Your task to perform on an android device: create a new album in the google photos Image 0: 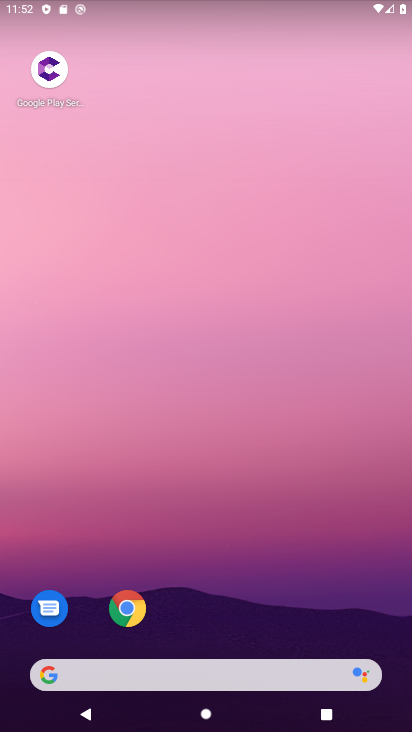
Step 0: drag from (218, 641) to (288, 0)
Your task to perform on an android device: create a new album in the google photos Image 1: 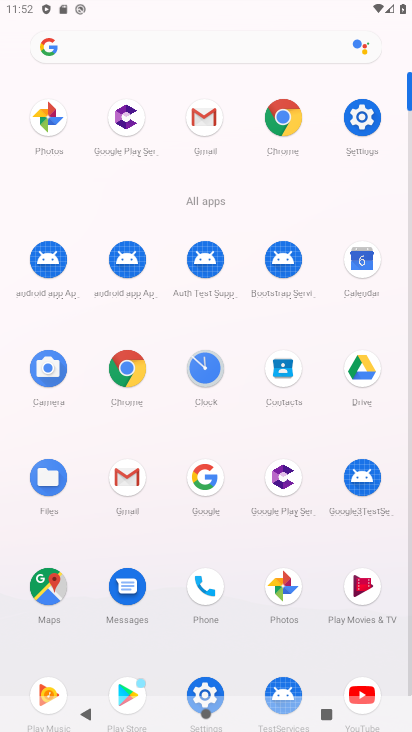
Step 1: click (284, 598)
Your task to perform on an android device: create a new album in the google photos Image 2: 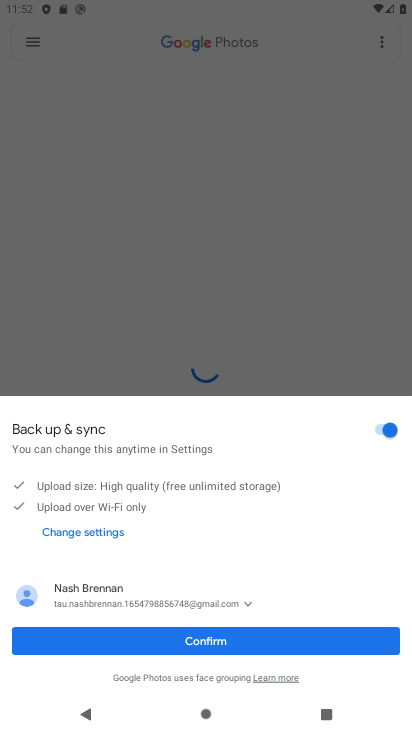
Step 2: click (226, 644)
Your task to perform on an android device: create a new album in the google photos Image 3: 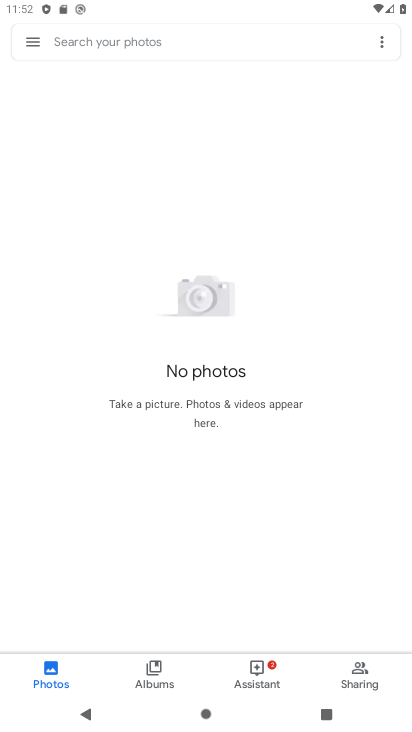
Step 3: click (133, 672)
Your task to perform on an android device: create a new album in the google photos Image 4: 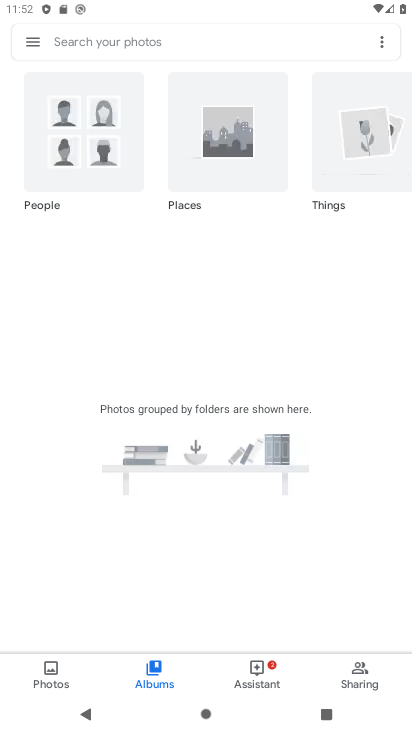
Step 4: click (383, 36)
Your task to perform on an android device: create a new album in the google photos Image 5: 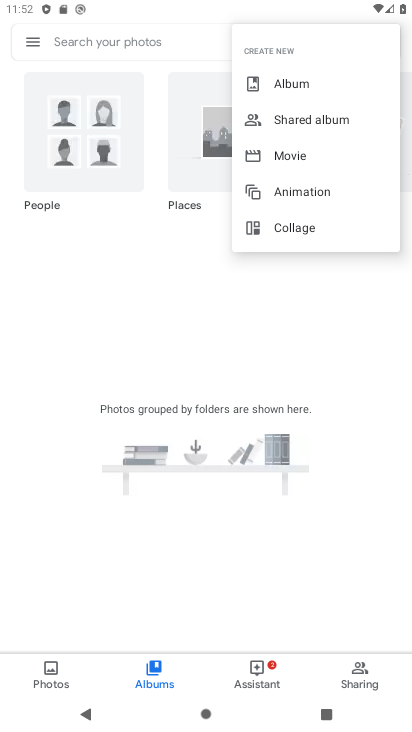
Step 5: click (314, 84)
Your task to perform on an android device: create a new album in the google photos Image 6: 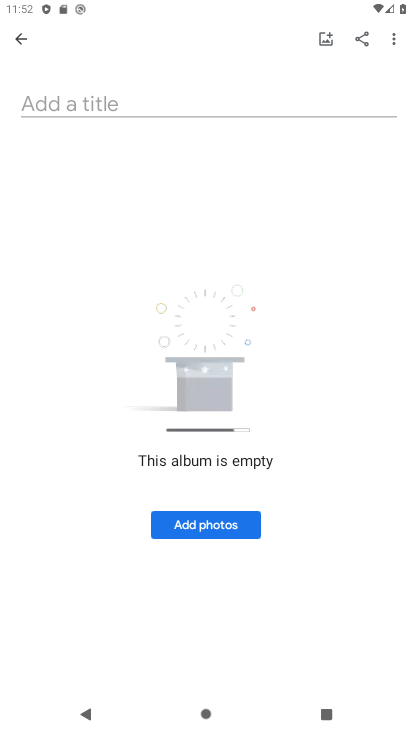
Step 6: click (206, 98)
Your task to perform on an android device: create a new album in the google photos Image 7: 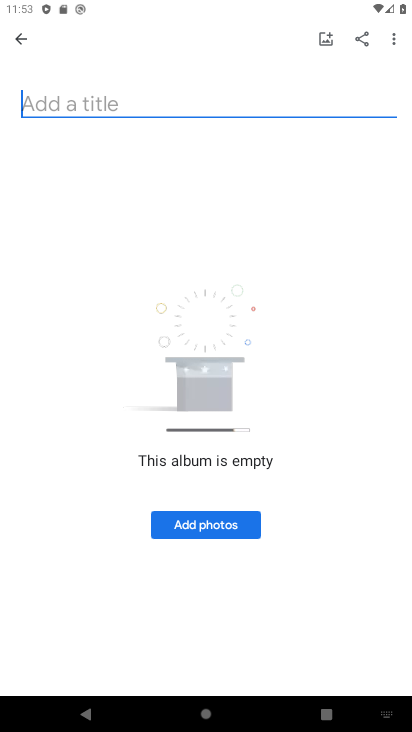
Step 7: type "pics"
Your task to perform on an android device: create a new album in the google photos Image 8: 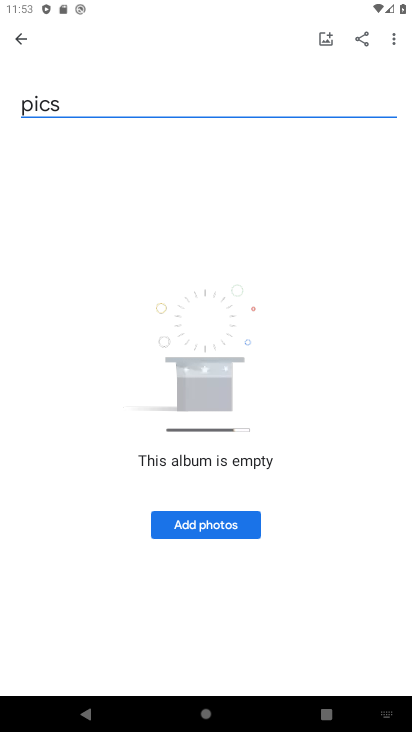
Step 8: click (216, 535)
Your task to perform on an android device: create a new album in the google photos Image 9: 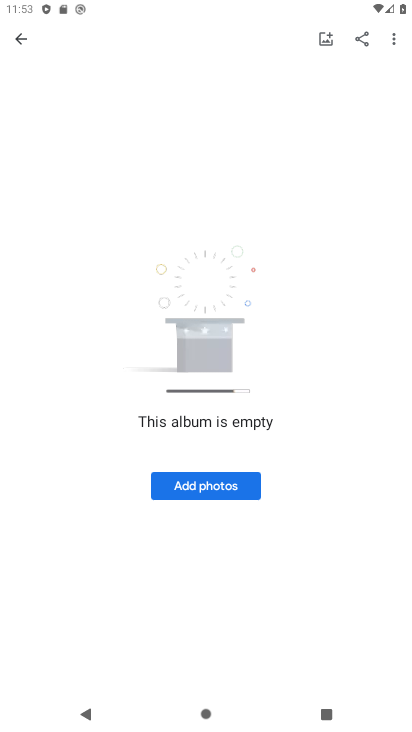
Step 9: click (205, 488)
Your task to perform on an android device: create a new album in the google photos Image 10: 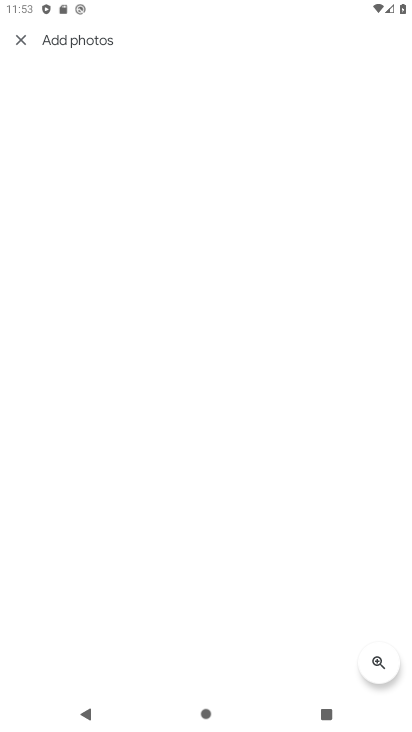
Step 10: drag from (199, 234) to (253, 705)
Your task to perform on an android device: create a new album in the google photos Image 11: 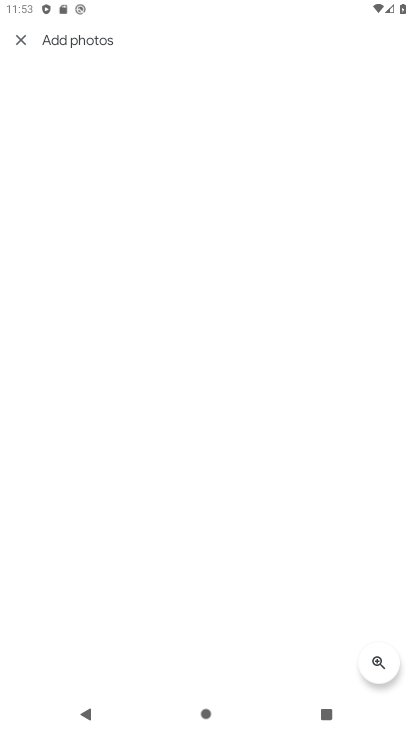
Step 11: click (23, 41)
Your task to perform on an android device: create a new album in the google photos Image 12: 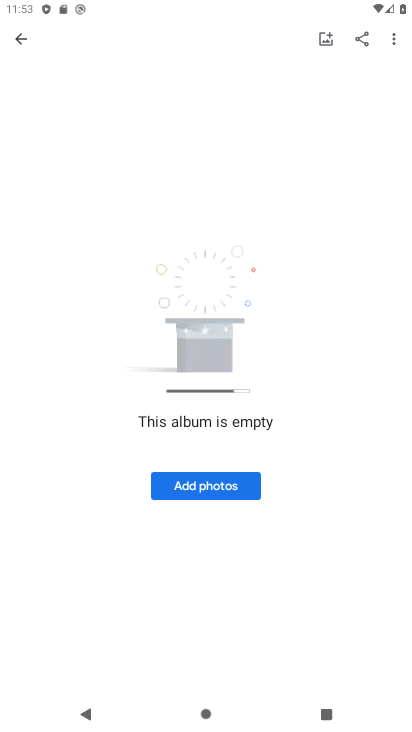
Step 12: click (12, 37)
Your task to perform on an android device: create a new album in the google photos Image 13: 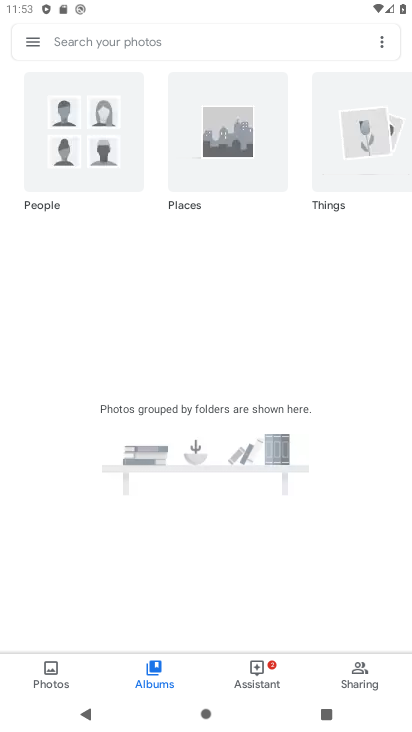
Step 13: task complete